Your task to perform on an android device: turn on the 12-hour format for clock Image 0: 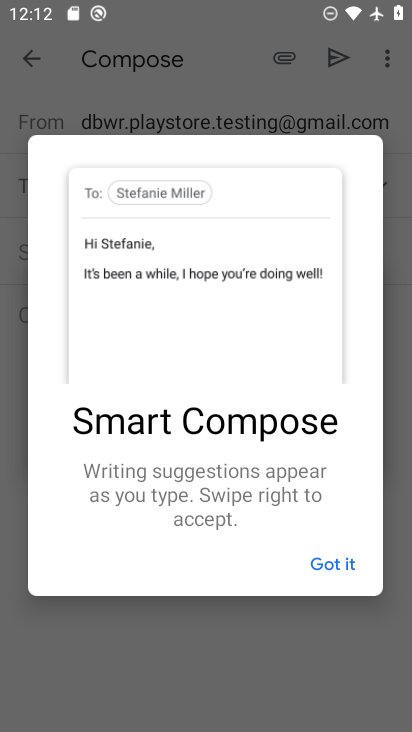
Step 0: press home button
Your task to perform on an android device: turn on the 12-hour format for clock Image 1: 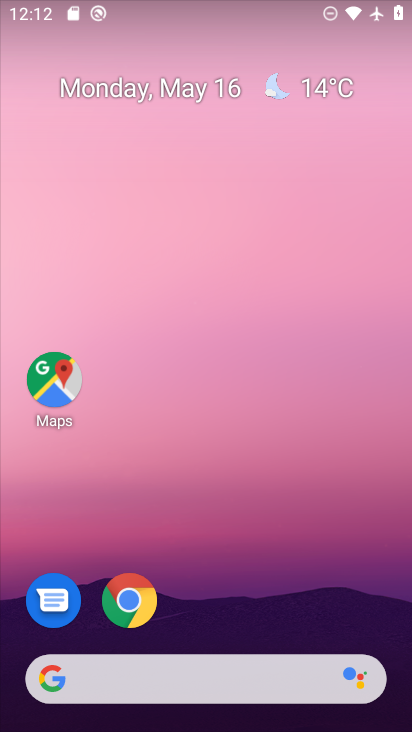
Step 1: drag from (390, 637) to (292, 35)
Your task to perform on an android device: turn on the 12-hour format for clock Image 2: 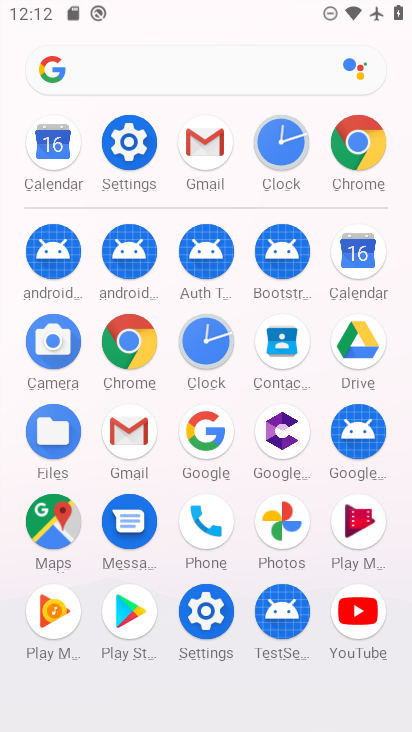
Step 2: click (204, 340)
Your task to perform on an android device: turn on the 12-hour format for clock Image 3: 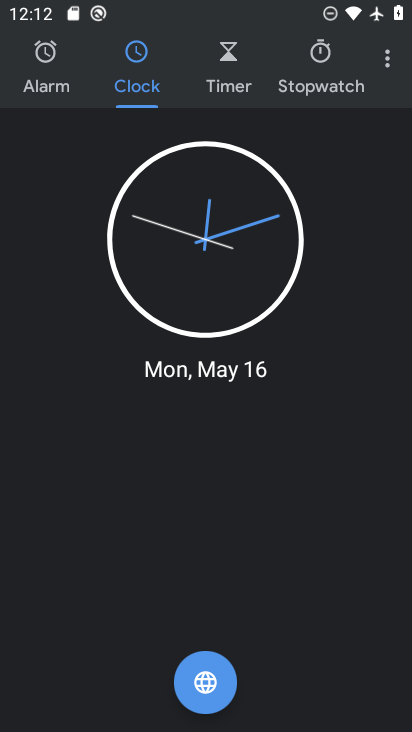
Step 3: click (385, 62)
Your task to perform on an android device: turn on the 12-hour format for clock Image 4: 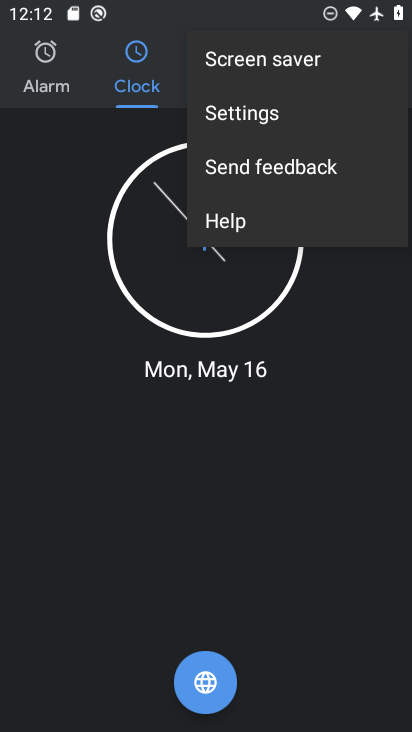
Step 4: click (205, 114)
Your task to perform on an android device: turn on the 12-hour format for clock Image 5: 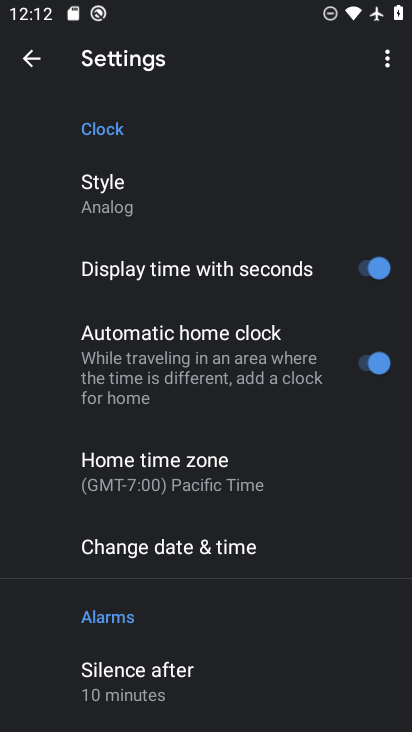
Step 5: click (225, 542)
Your task to perform on an android device: turn on the 12-hour format for clock Image 6: 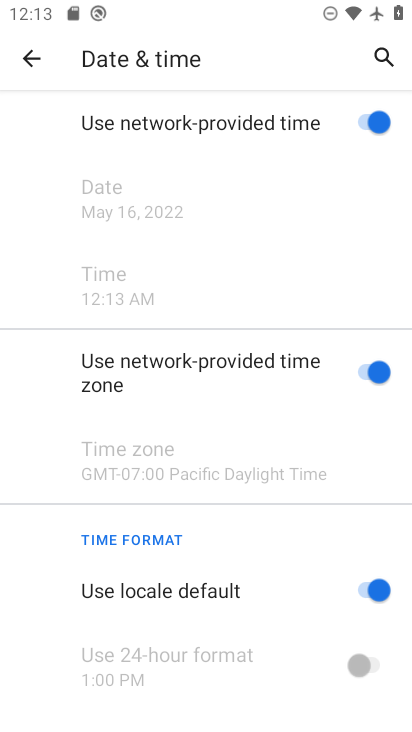
Step 6: task complete